Your task to perform on an android device: Is it going to rain today? Image 0: 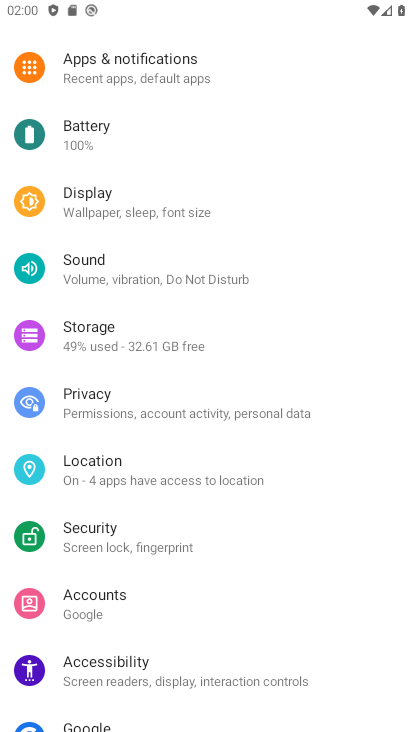
Step 0: press home button
Your task to perform on an android device: Is it going to rain today? Image 1: 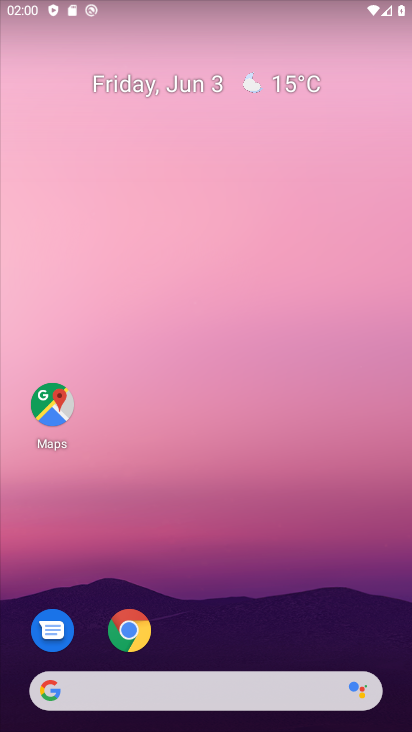
Step 1: click (302, 81)
Your task to perform on an android device: Is it going to rain today? Image 2: 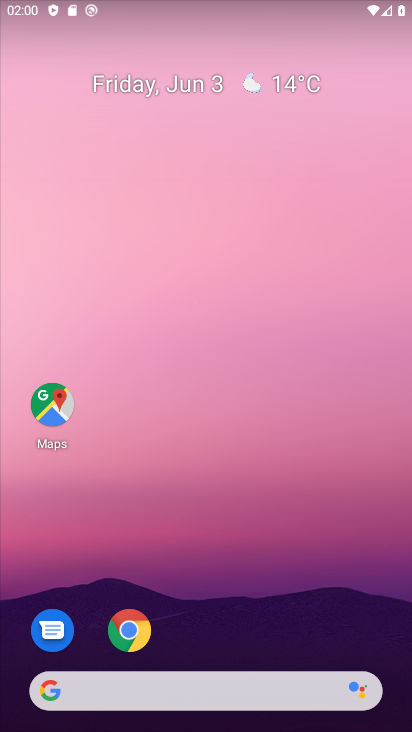
Step 2: click (293, 82)
Your task to perform on an android device: Is it going to rain today? Image 3: 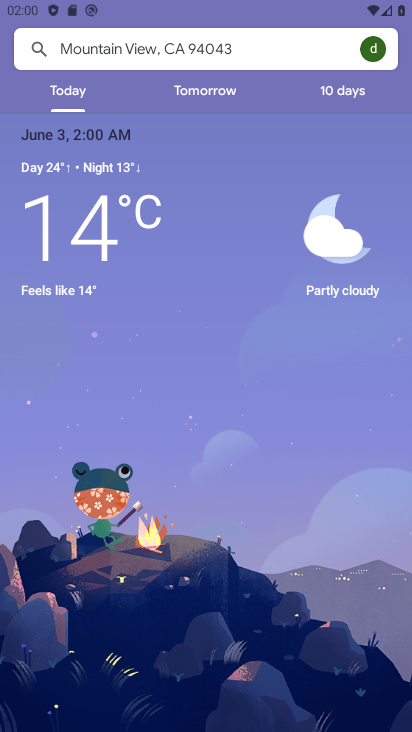
Step 3: task complete